Your task to perform on an android device: toggle notifications settings in the gmail app Image 0: 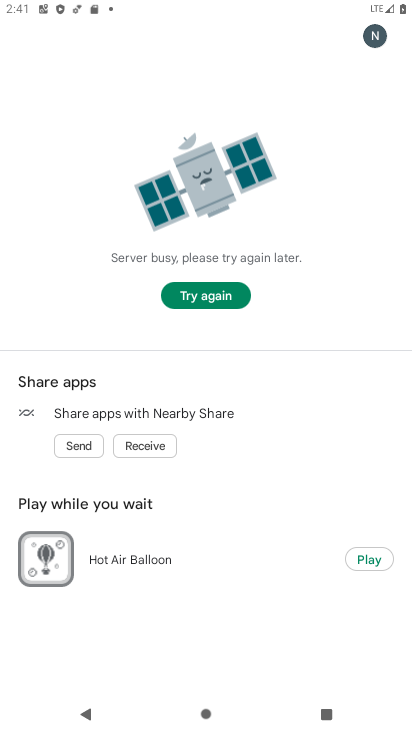
Step 0: press home button
Your task to perform on an android device: toggle notifications settings in the gmail app Image 1: 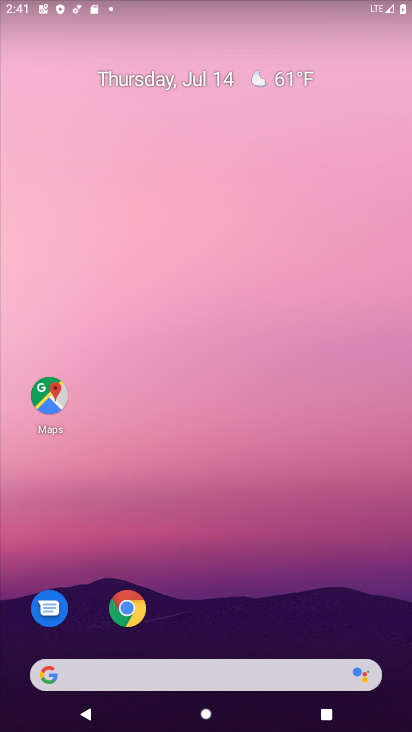
Step 1: drag from (174, 606) to (122, 212)
Your task to perform on an android device: toggle notifications settings in the gmail app Image 2: 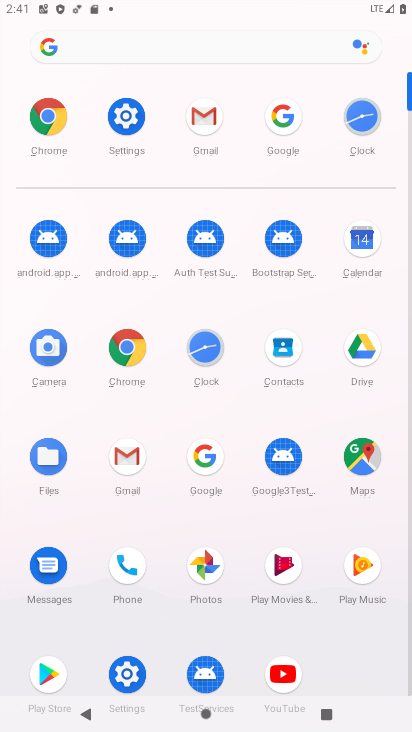
Step 2: click (210, 116)
Your task to perform on an android device: toggle notifications settings in the gmail app Image 3: 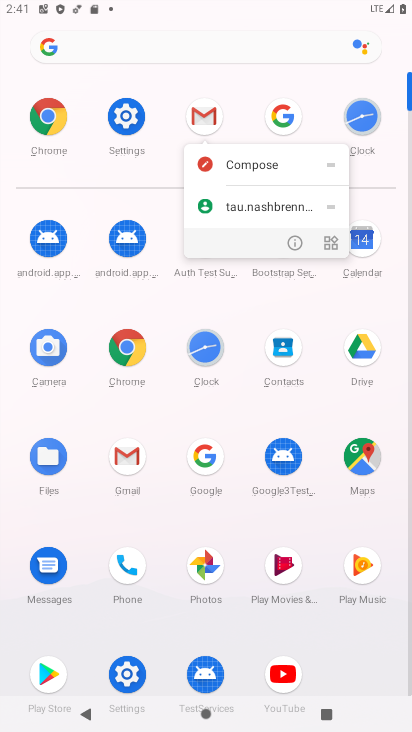
Step 3: click (210, 116)
Your task to perform on an android device: toggle notifications settings in the gmail app Image 4: 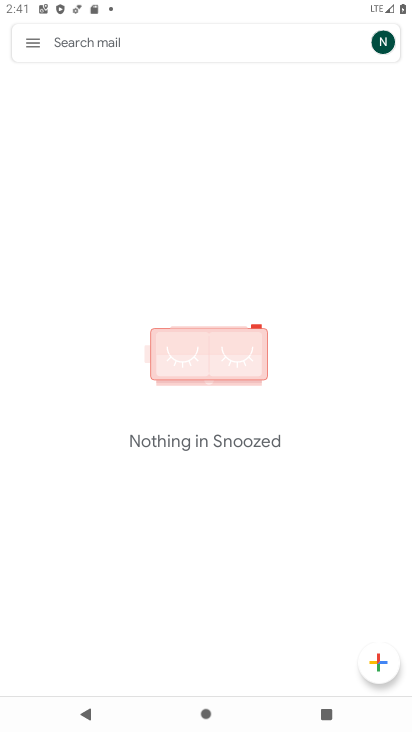
Step 4: click (41, 41)
Your task to perform on an android device: toggle notifications settings in the gmail app Image 5: 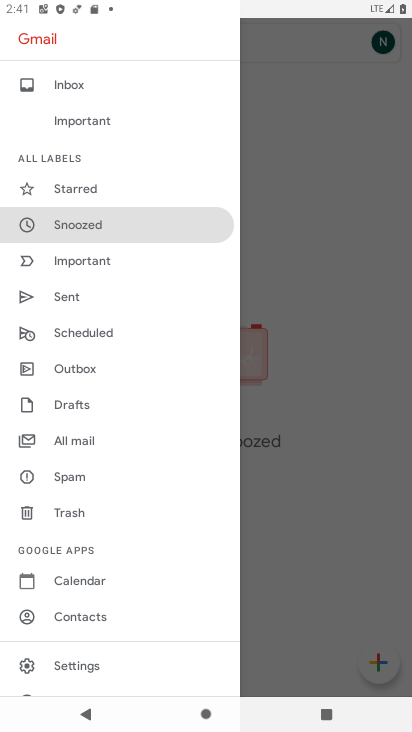
Step 5: click (79, 665)
Your task to perform on an android device: toggle notifications settings in the gmail app Image 6: 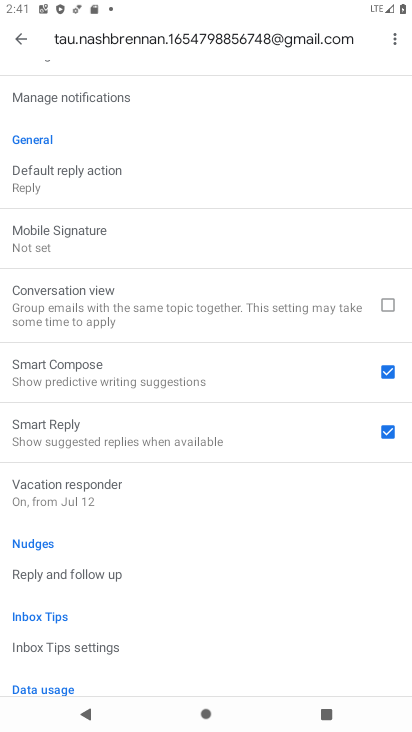
Step 6: click (67, 92)
Your task to perform on an android device: toggle notifications settings in the gmail app Image 7: 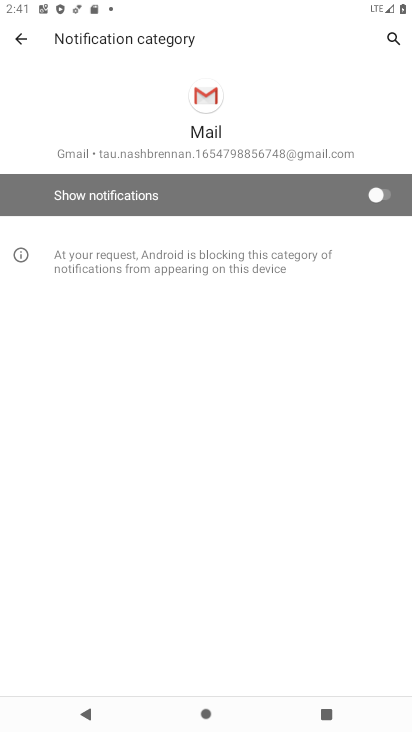
Step 7: click (383, 195)
Your task to perform on an android device: toggle notifications settings in the gmail app Image 8: 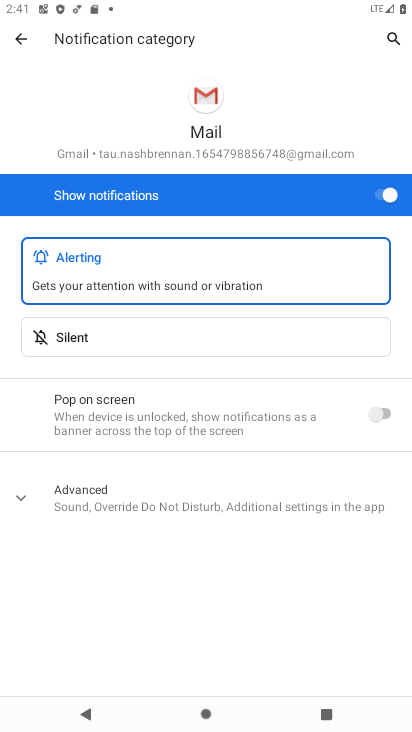
Step 8: task complete